Your task to perform on an android device: Clear the shopping cart on costco. Image 0: 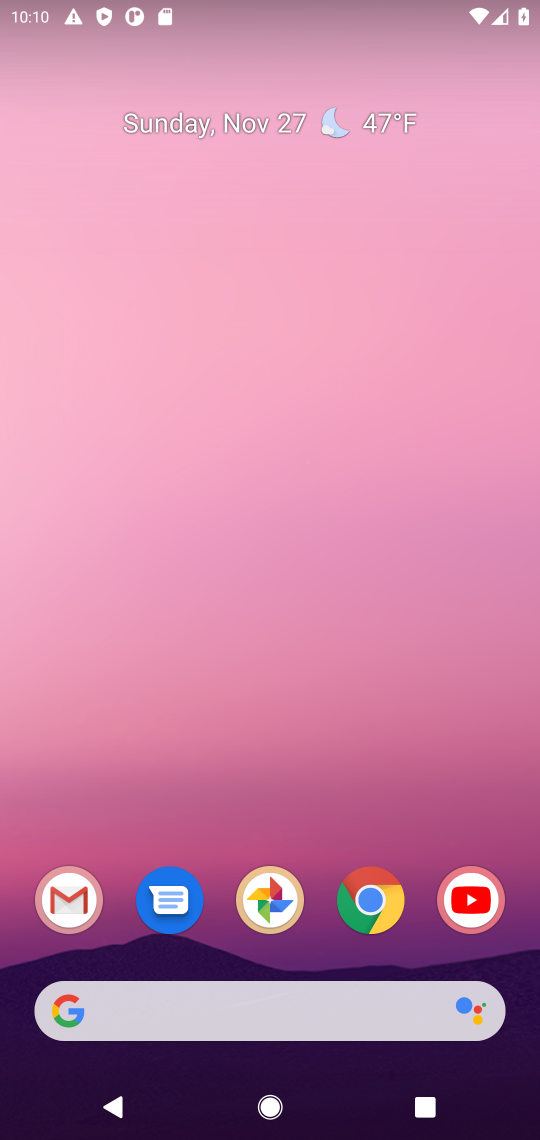
Step 0: click (434, 707)
Your task to perform on an android device: Clear the shopping cart on costco. Image 1: 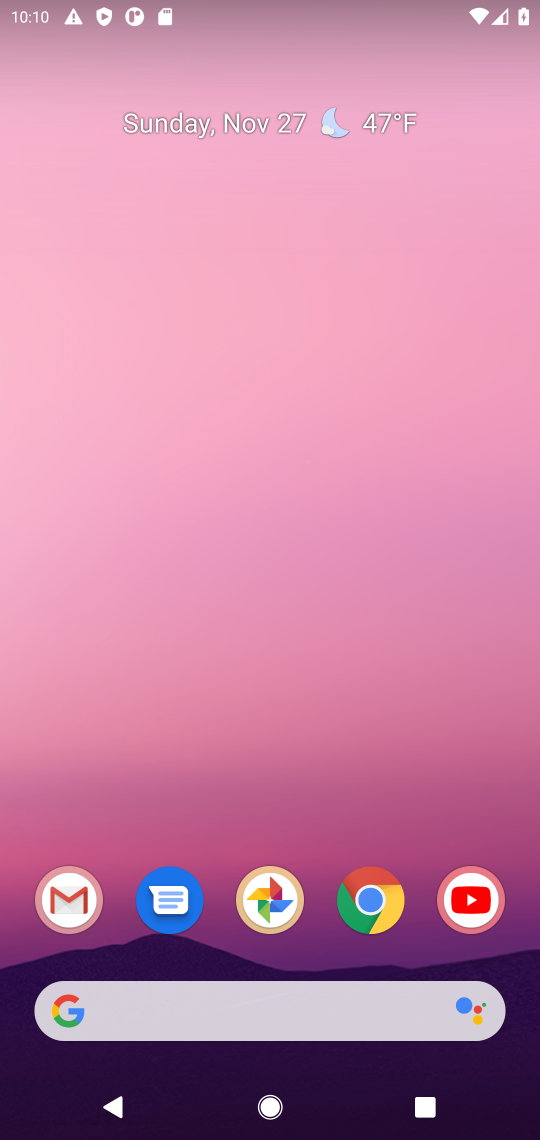
Step 1: click (376, 908)
Your task to perform on an android device: Clear the shopping cart on costco. Image 2: 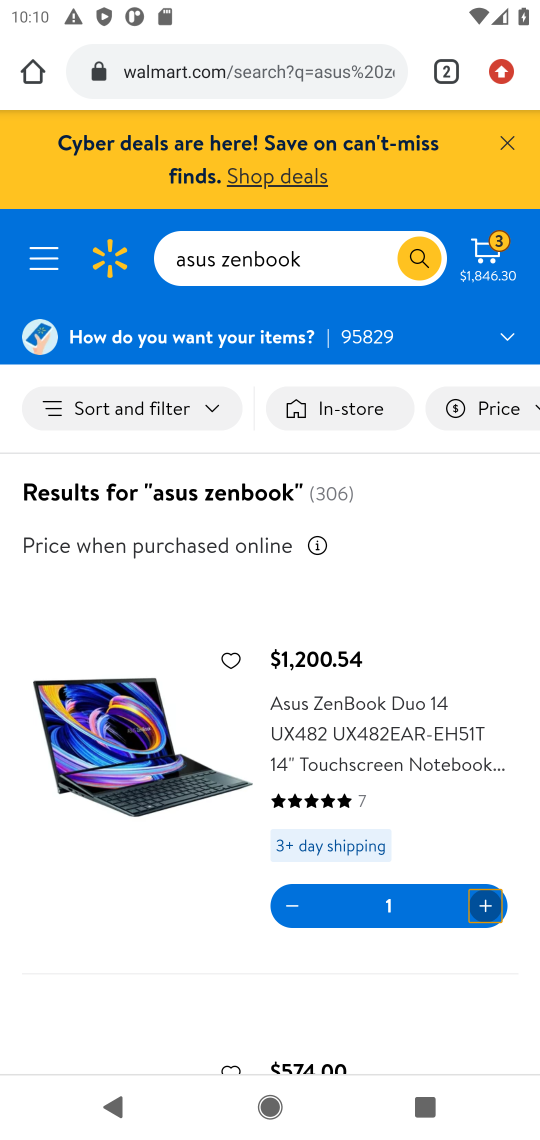
Step 2: click (209, 75)
Your task to perform on an android device: Clear the shopping cart on costco. Image 3: 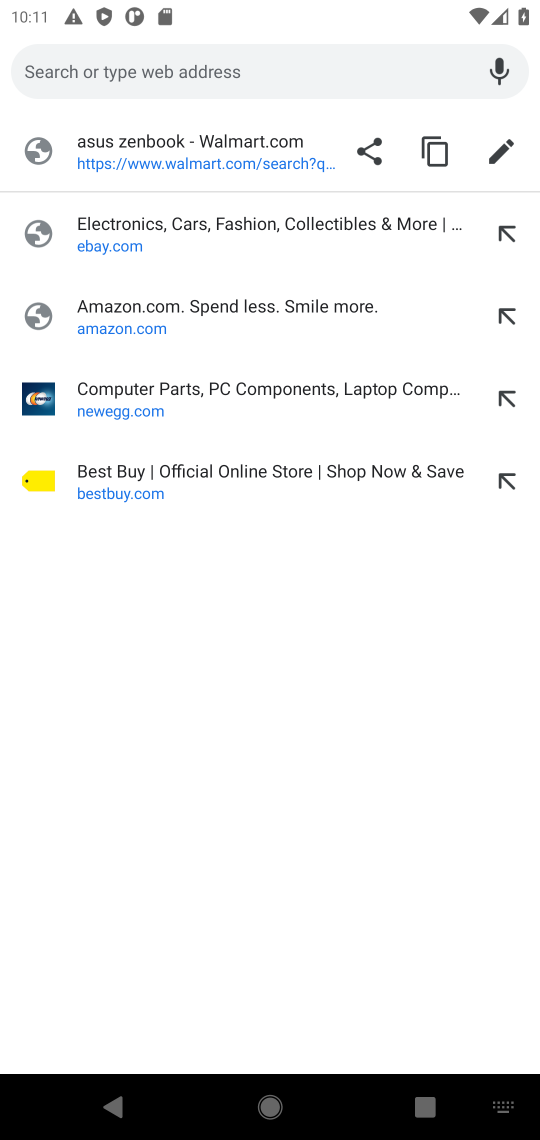
Step 3: type "costco.com"
Your task to perform on an android device: Clear the shopping cart on costco. Image 4: 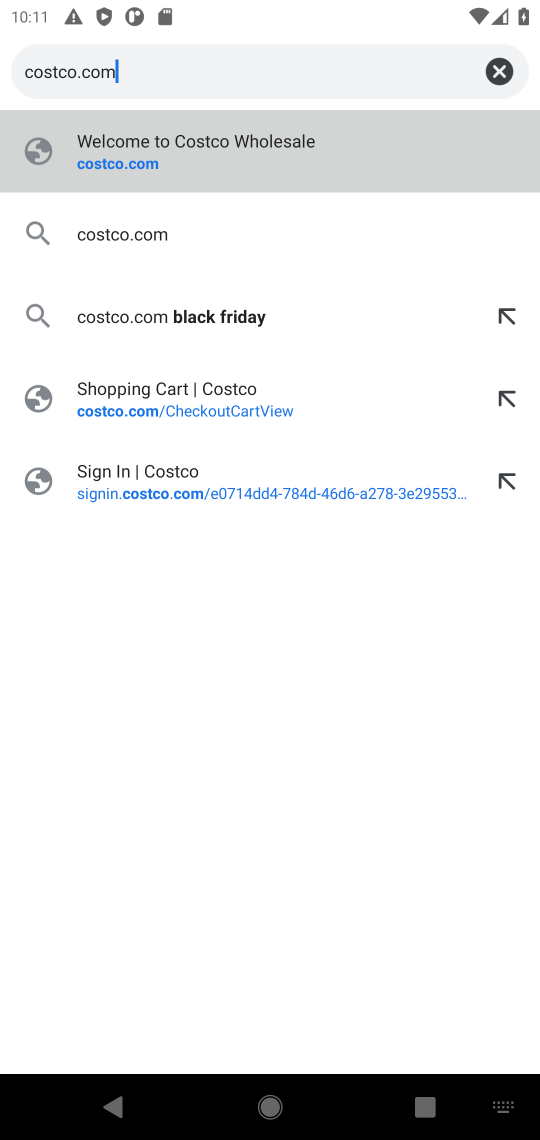
Step 4: click (121, 168)
Your task to perform on an android device: Clear the shopping cart on costco. Image 5: 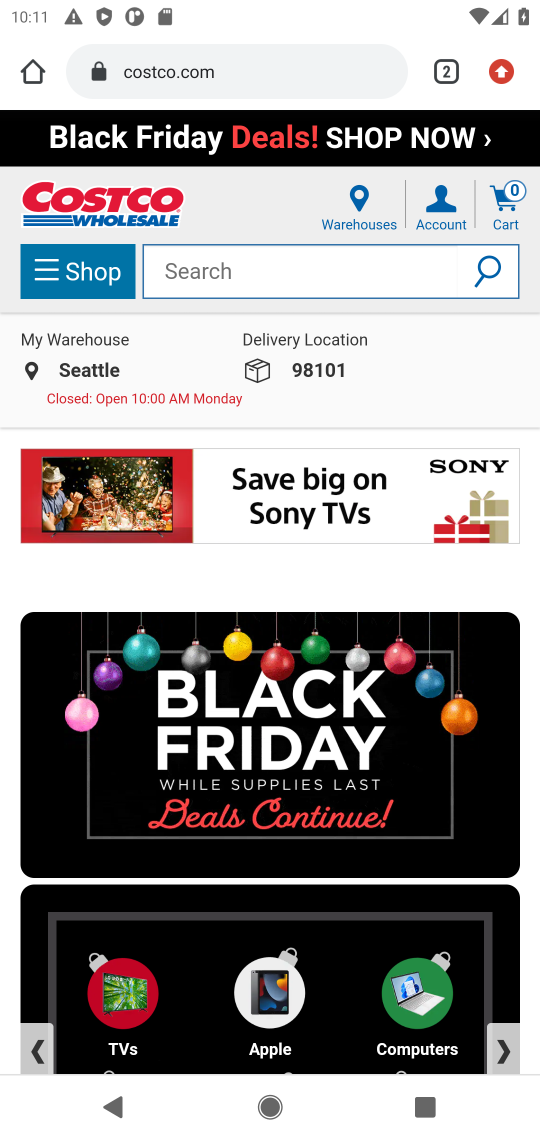
Step 5: click (515, 209)
Your task to perform on an android device: Clear the shopping cart on costco. Image 6: 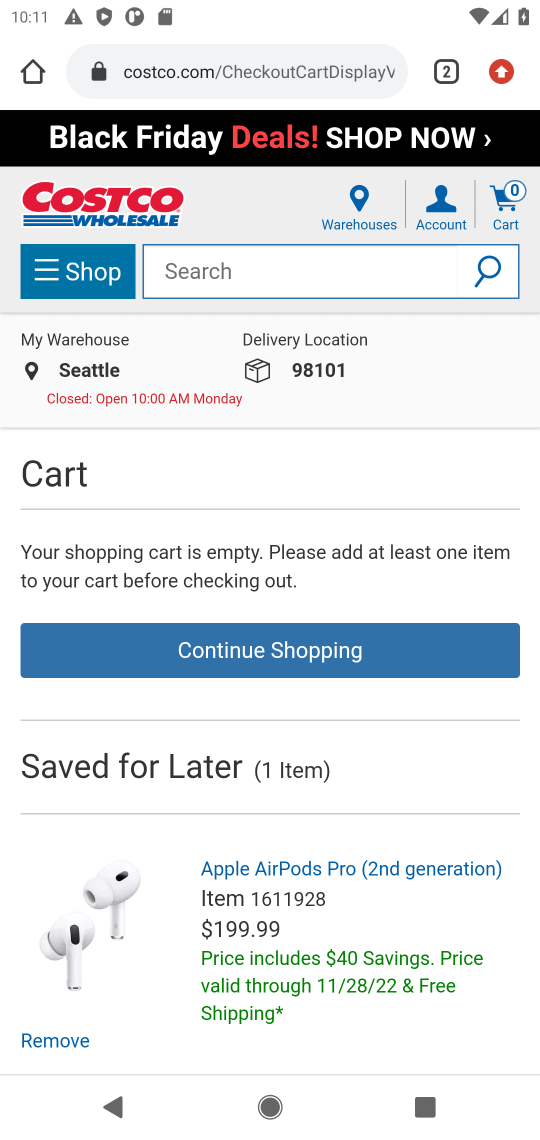
Step 6: task complete